Your task to perform on an android device: When is my next appointment? Image 0: 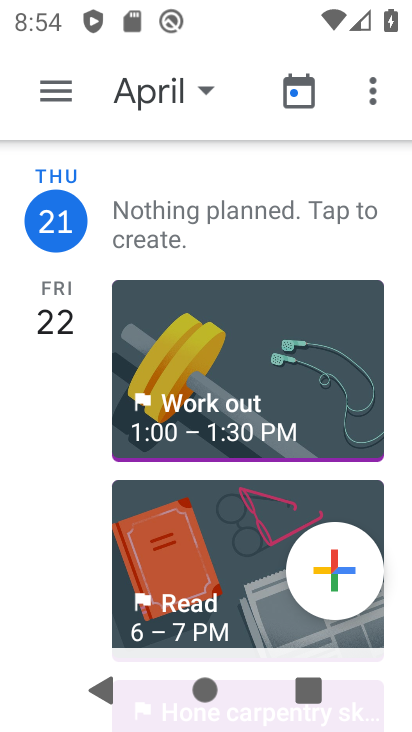
Step 0: press home button
Your task to perform on an android device: When is my next appointment? Image 1: 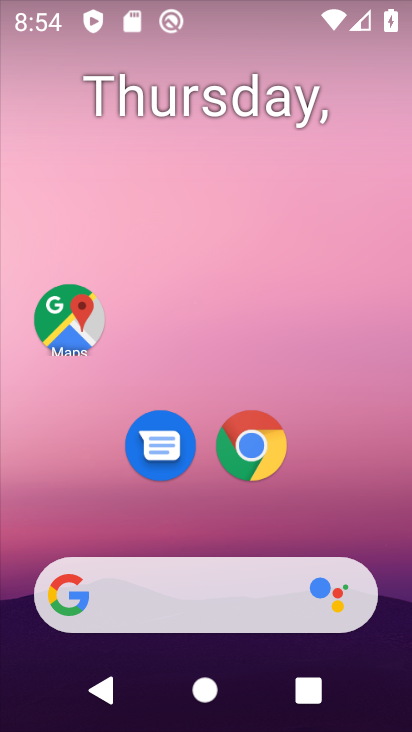
Step 1: drag from (373, 561) to (352, 5)
Your task to perform on an android device: When is my next appointment? Image 2: 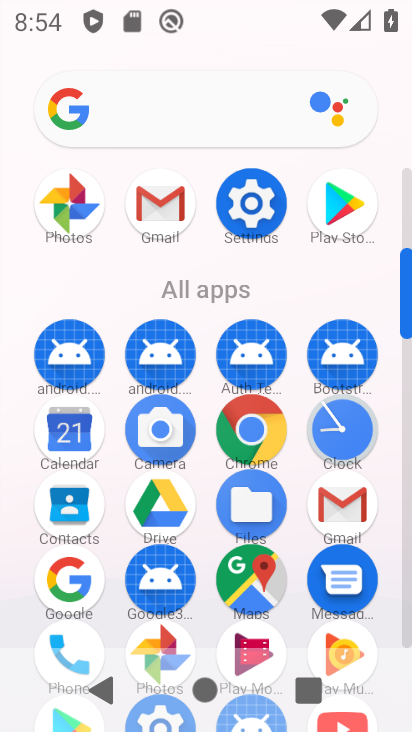
Step 2: click (66, 440)
Your task to perform on an android device: When is my next appointment? Image 3: 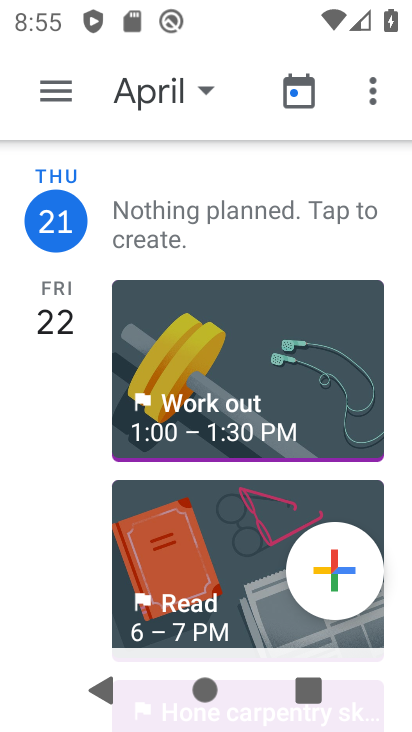
Step 3: click (210, 94)
Your task to perform on an android device: When is my next appointment? Image 4: 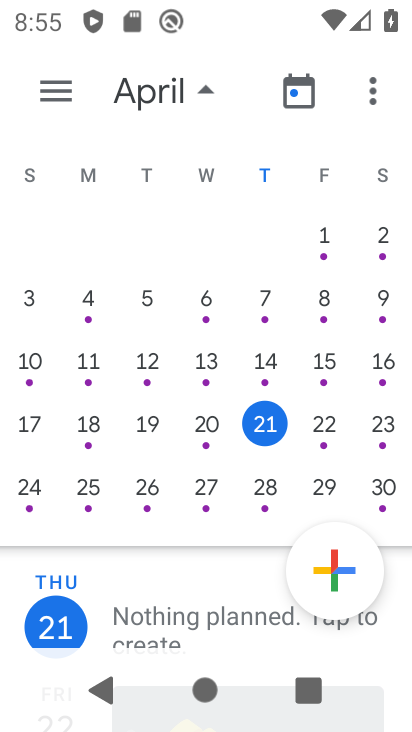
Step 4: click (328, 425)
Your task to perform on an android device: When is my next appointment? Image 5: 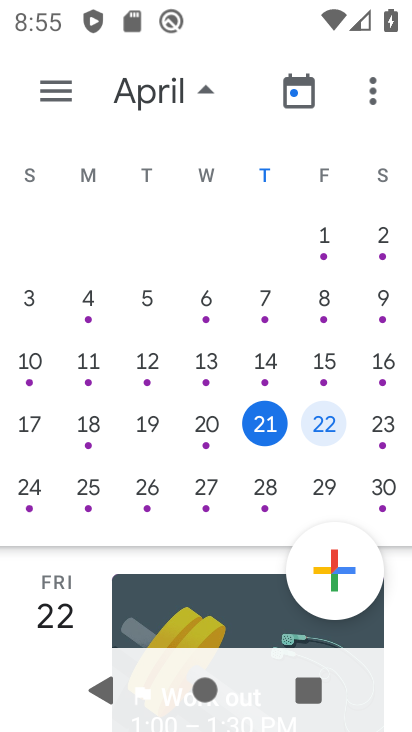
Step 5: drag from (166, 523) to (155, 177)
Your task to perform on an android device: When is my next appointment? Image 6: 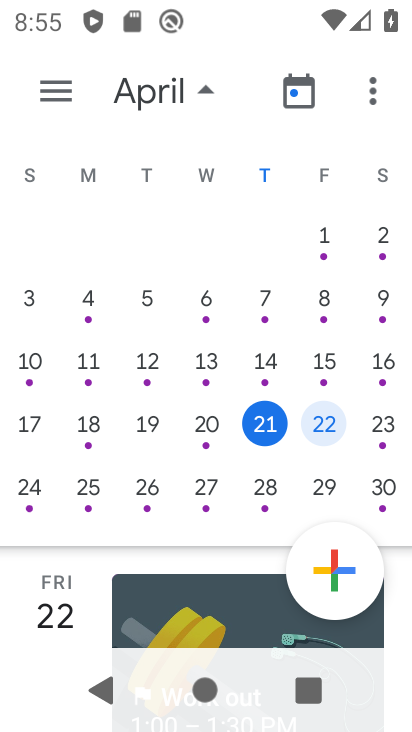
Step 6: click (260, 422)
Your task to perform on an android device: When is my next appointment? Image 7: 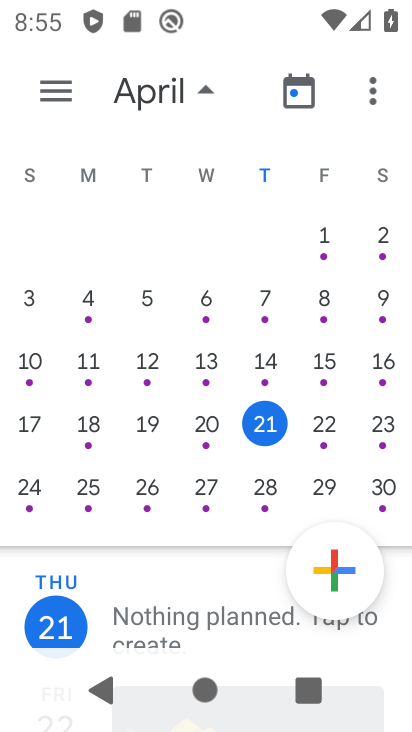
Step 7: drag from (171, 563) to (169, 343)
Your task to perform on an android device: When is my next appointment? Image 8: 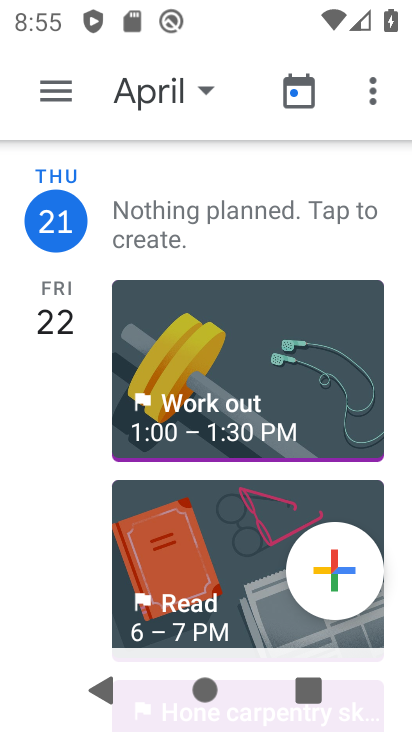
Step 8: click (314, 214)
Your task to perform on an android device: When is my next appointment? Image 9: 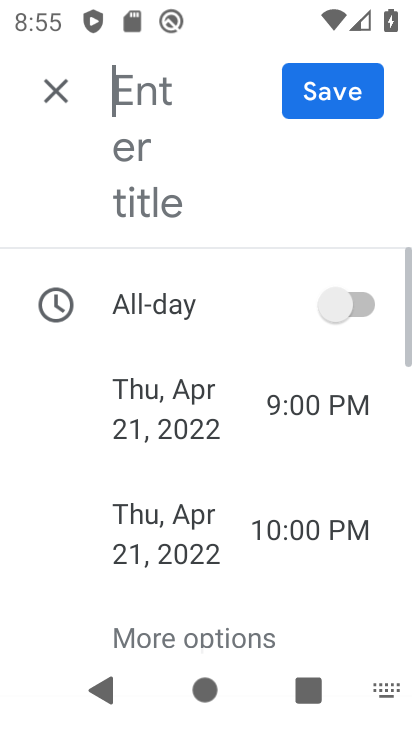
Step 9: drag from (212, 368) to (215, 226)
Your task to perform on an android device: When is my next appointment? Image 10: 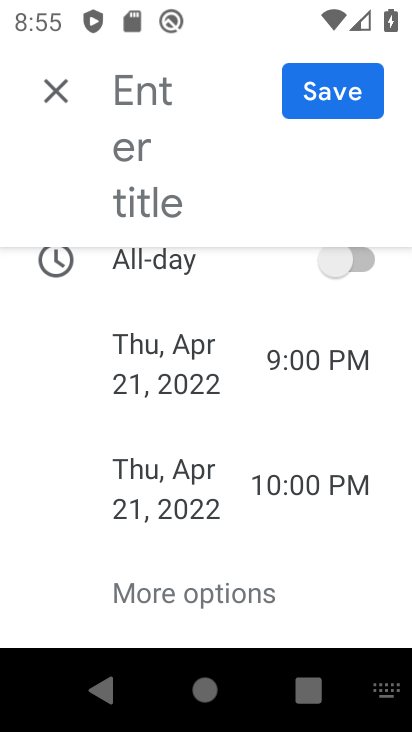
Step 10: click (53, 84)
Your task to perform on an android device: When is my next appointment? Image 11: 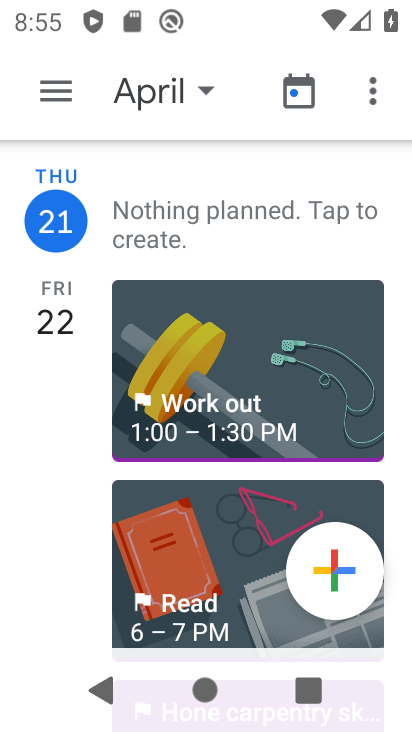
Step 11: drag from (179, 524) to (181, 342)
Your task to perform on an android device: When is my next appointment? Image 12: 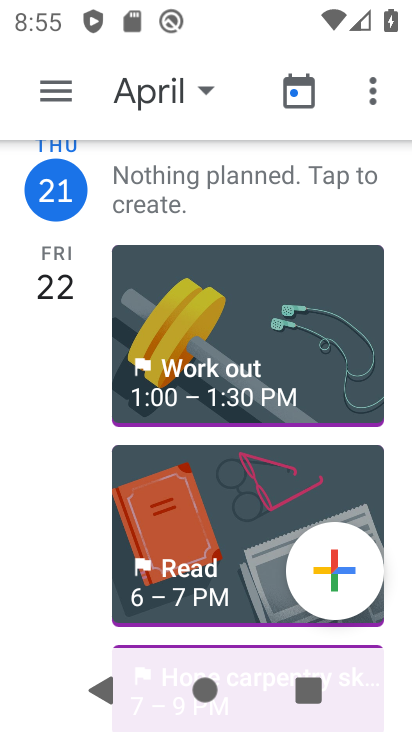
Step 12: drag from (181, 407) to (174, 233)
Your task to perform on an android device: When is my next appointment? Image 13: 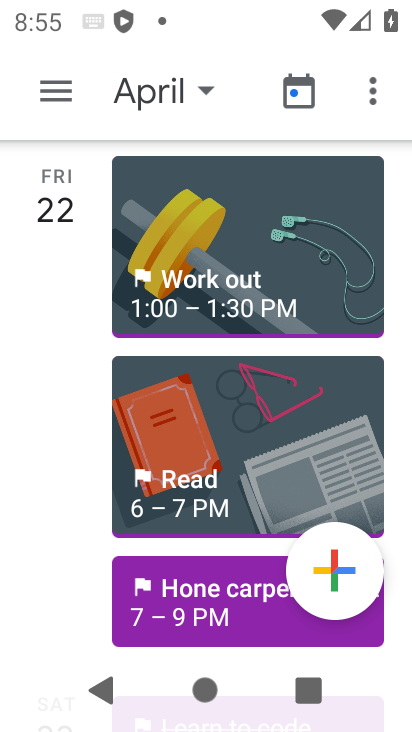
Step 13: click (170, 597)
Your task to perform on an android device: When is my next appointment? Image 14: 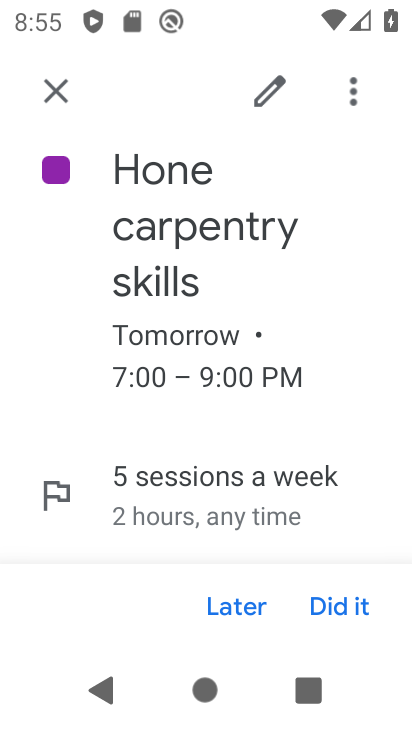
Step 14: task complete